Your task to perform on an android device: change the upload size in google photos Image 0: 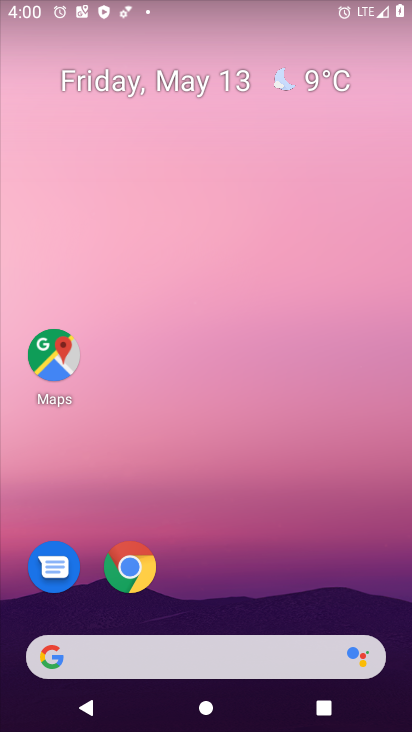
Step 0: drag from (333, 589) to (379, 18)
Your task to perform on an android device: change the upload size in google photos Image 1: 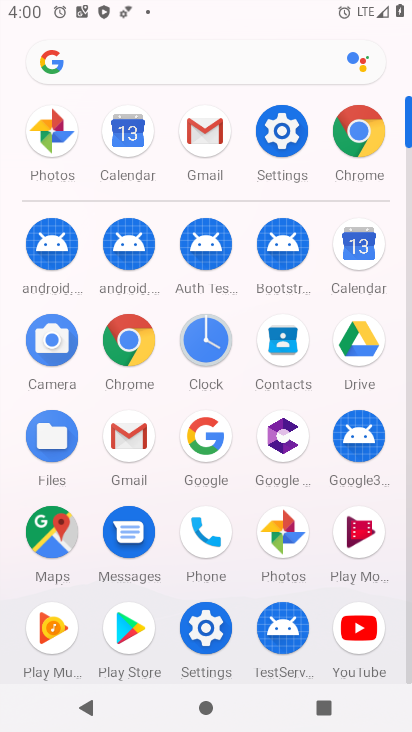
Step 1: click (60, 136)
Your task to perform on an android device: change the upload size in google photos Image 2: 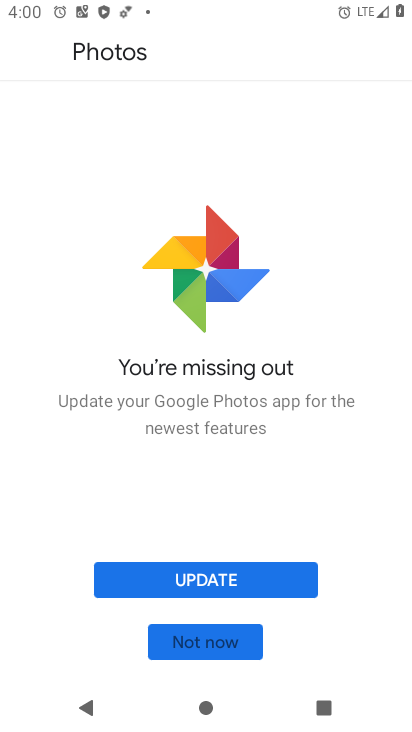
Step 2: click (189, 650)
Your task to perform on an android device: change the upload size in google photos Image 3: 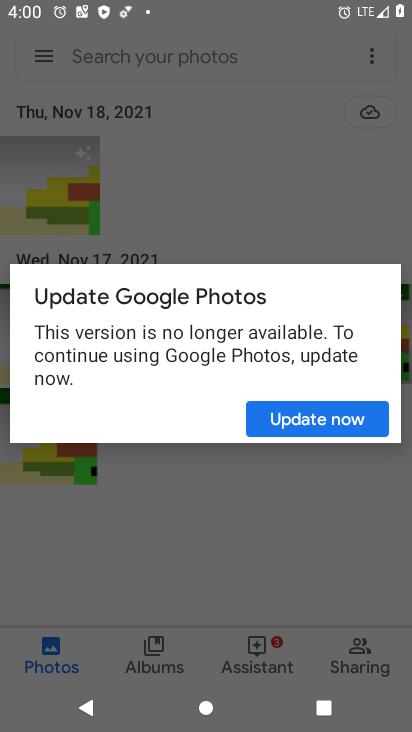
Step 3: click (314, 414)
Your task to perform on an android device: change the upload size in google photos Image 4: 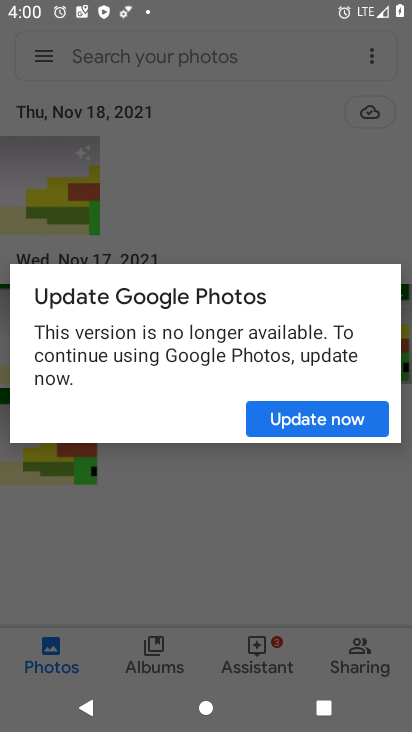
Step 4: click (318, 426)
Your task to perform on an android device: change the upload size in google photos Image 5: 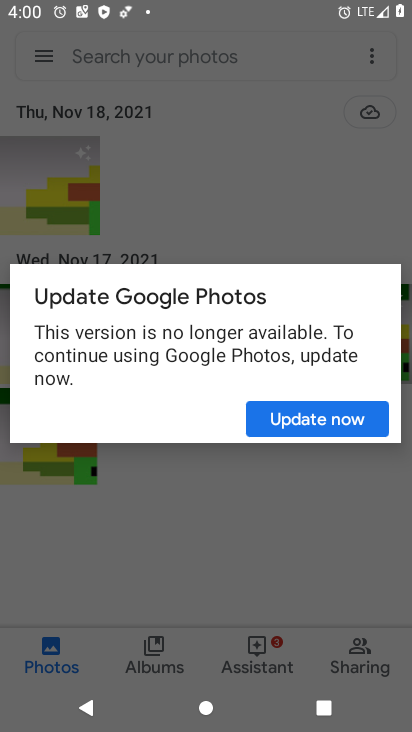
Step 5: click (357, 427)
Your task to perform on an android device: change the upload size in google photos Image 6: 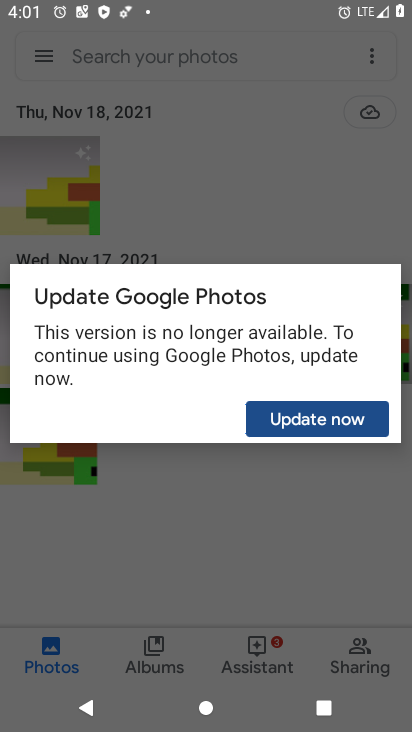
Step 6: click (323, 420)
Your task to perform on an android device: change the upload size in google photos Image 7: 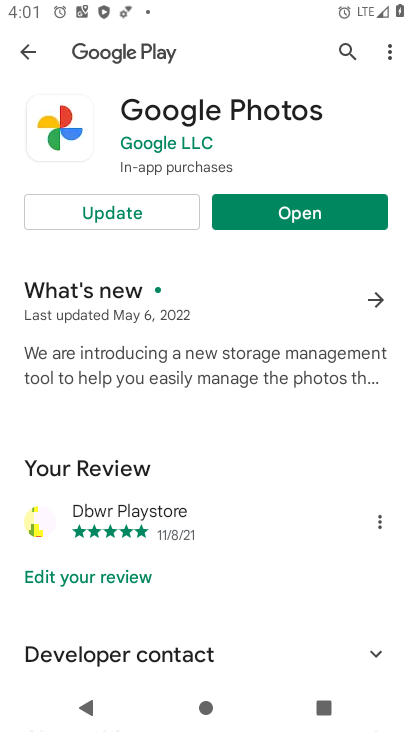
Step 7: click (284, 213)
Your task to perform on an android device: change the upload size in google photos Image 8: 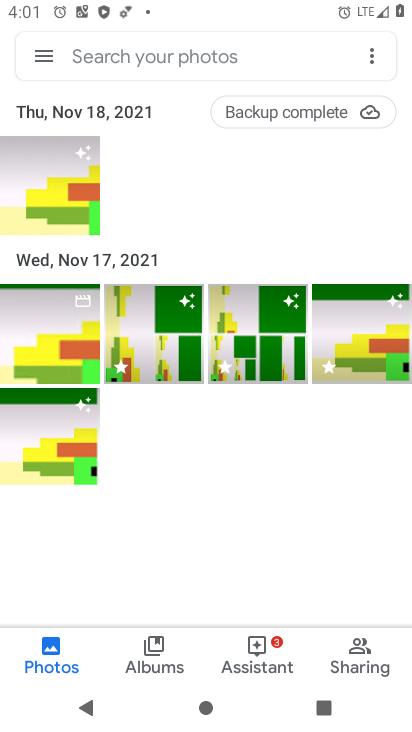
Step 8: click (48, 59)
Your task to perform on an android device: change the upload size in google photos Image 9: 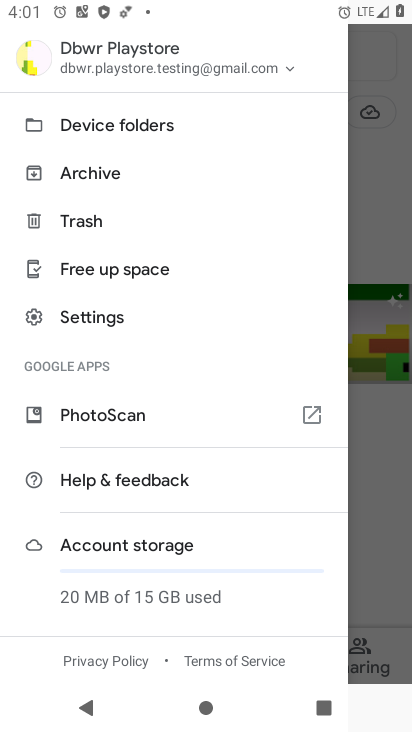
Step 9: click (91, 318)
Your task to perform on an android device: change the upload size in google photos Image 10: 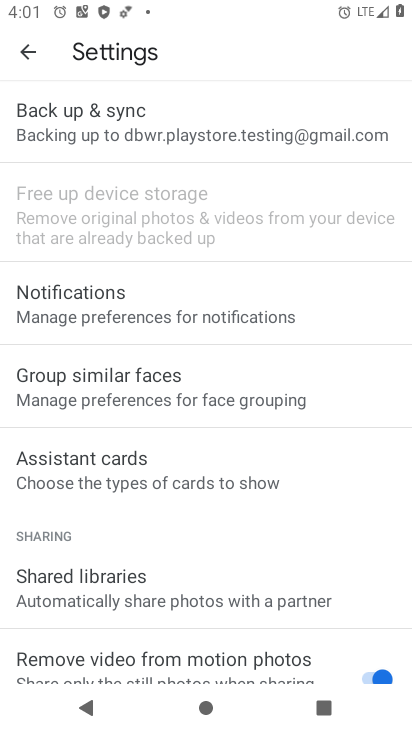
Step 10: click (112, 144)
Your task to perform on an android device: change the upload size in google photos Image 11: 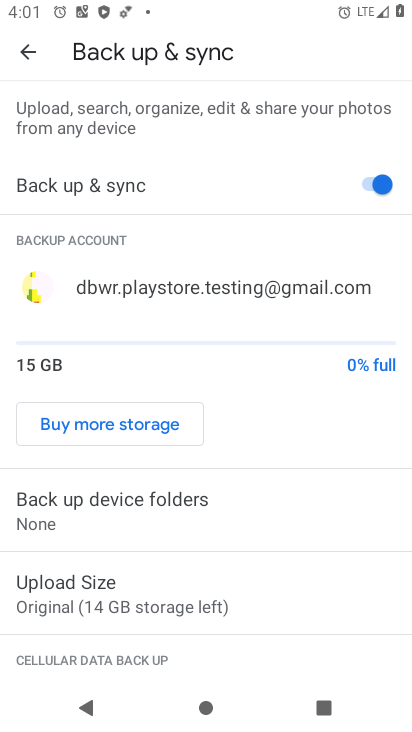
Step 11: click (56, 593)
Your task to perform on an android device: change the upload size in google photos Image 12: 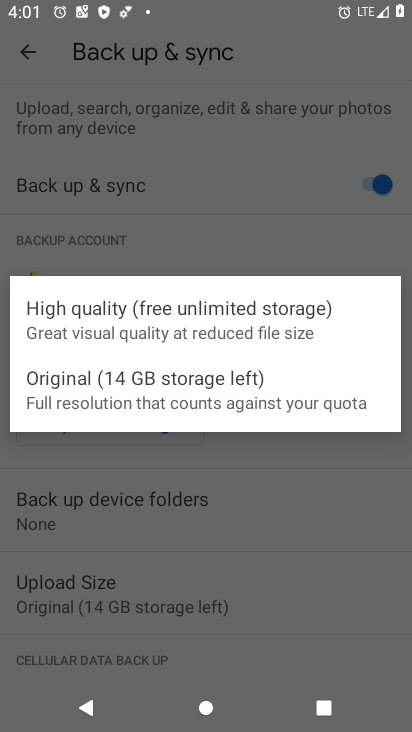
Step 12: click (93, 331)
Your task to perform on an android device: change the upload size in google photos Image 13: 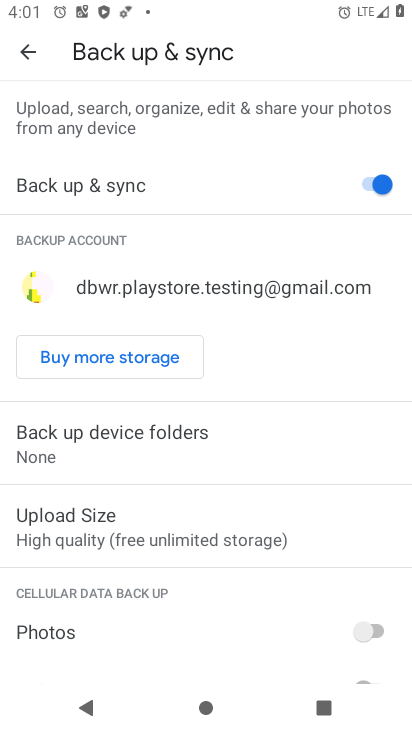
Step 13: task complete